Your task to perform on an android device: Open Chrome and go to settings Image 0: 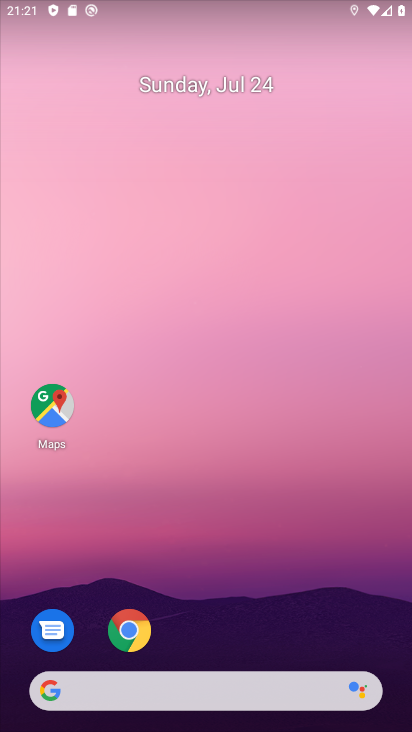
Step 0: click (136, 643)
Your task to perform on an android device: Open Chrome and go to settings Image 1: 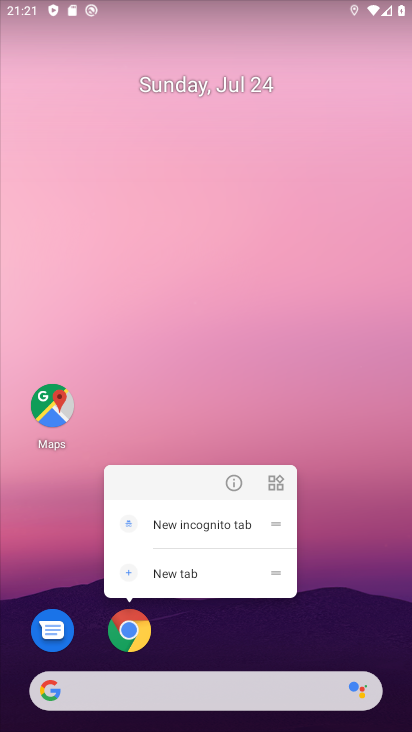
Step 1: click (136, 643)
Your task to perform on an android device: Open Chrome and go to settings Image 2: 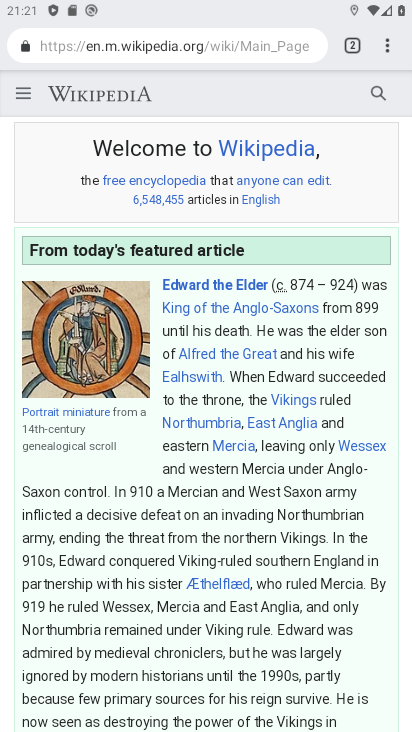
Step 2: click (391, 41)
Your task to perform on an android device: Open Chrome and go to settings Image 3: 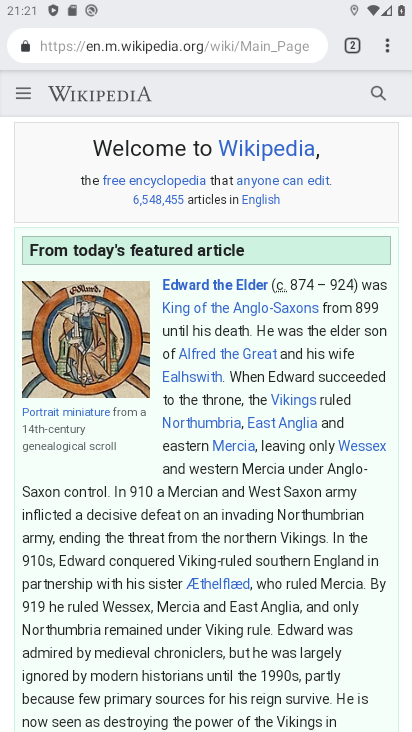
Step 3: click (391, 37)
Your task to perform on an android device: Open Chrome and go to settings Image 4: 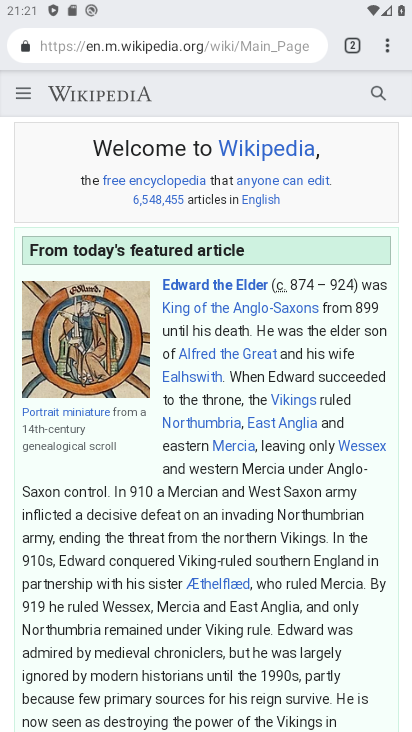
Step 4: click (391, 37)
Your task to perform on an android device: Open Chrome and go to settings Image 5: 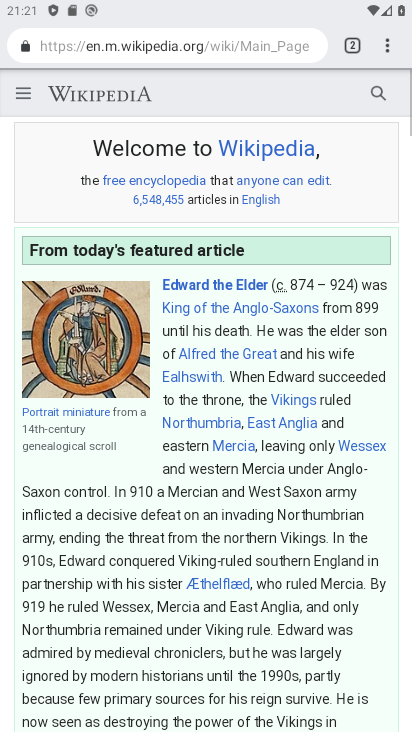
Step 5: click (391, 37)
Your task to perform on an android device: Open Chrome and go to settings Image 6: 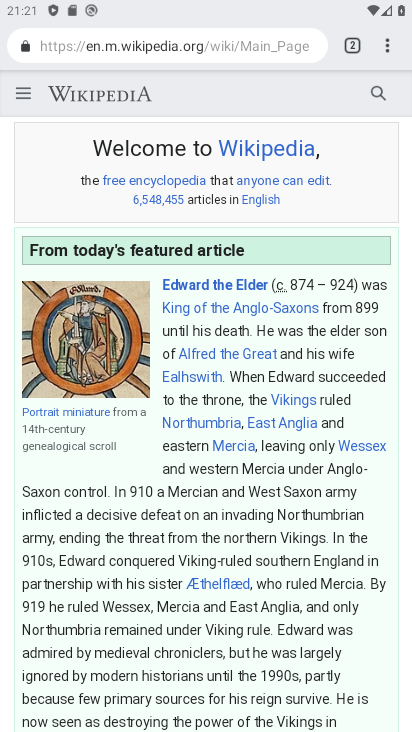
Step 6: click (382, 36)
Your task to perform on an android device: Open Chrome and go to settings Image 7: 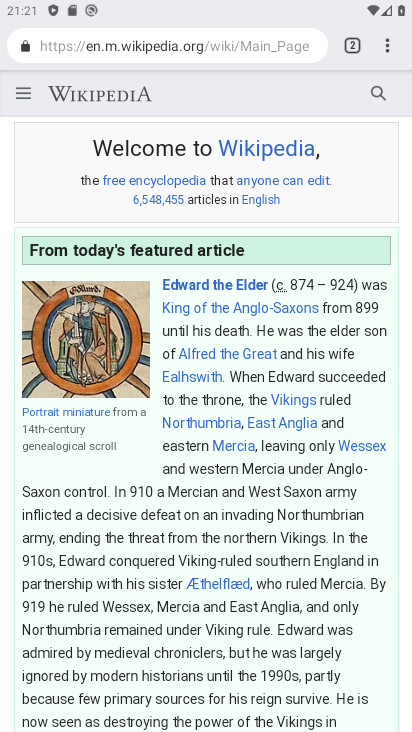
Step 7: click (408, 34)
Your task to perform on an android device: Open Chrome and go to settings Image 8: 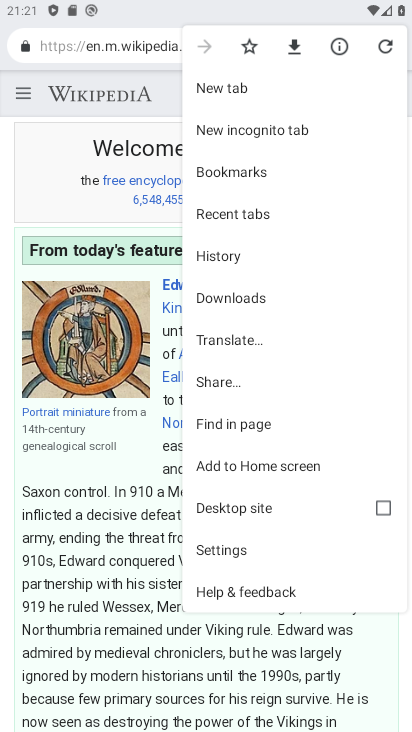
Step 8: click (229, 543)
Your task to perform on an android device: Open Chrome and go to settings Image 9: 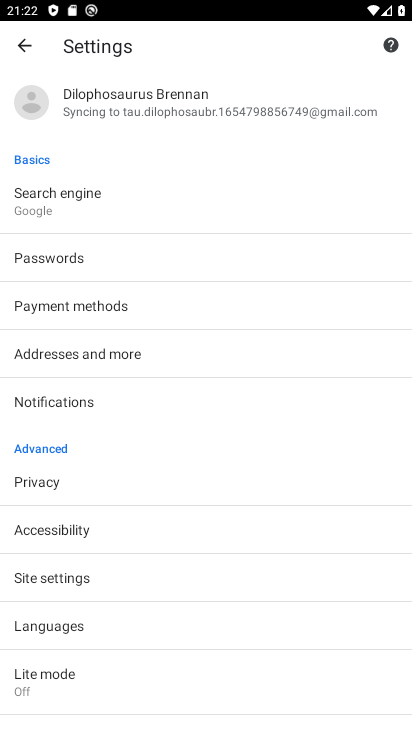
Step 9: task complete